Your task to perform on an android device: Open settings Image 0: 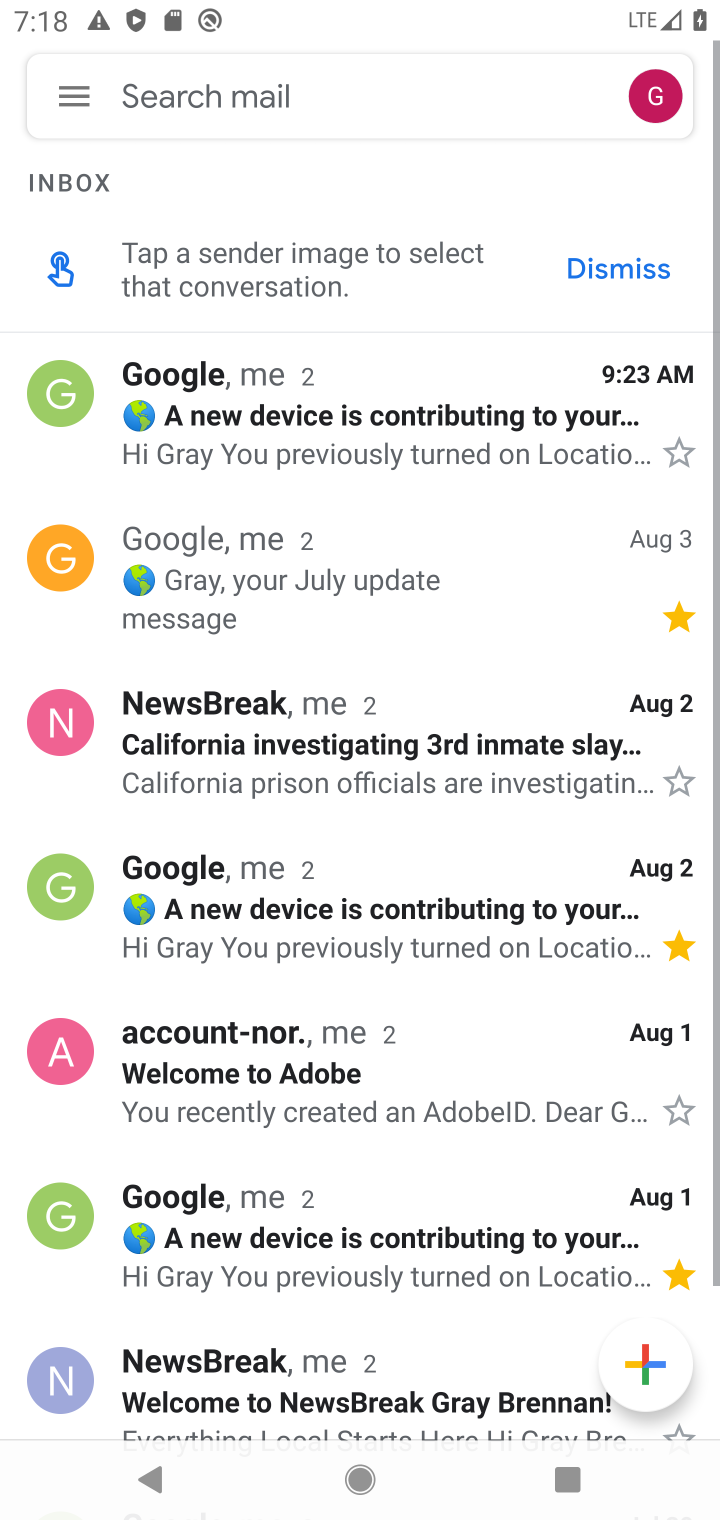
Step 0: press home button
Your task to perform on an android device: Open settings Image 1: 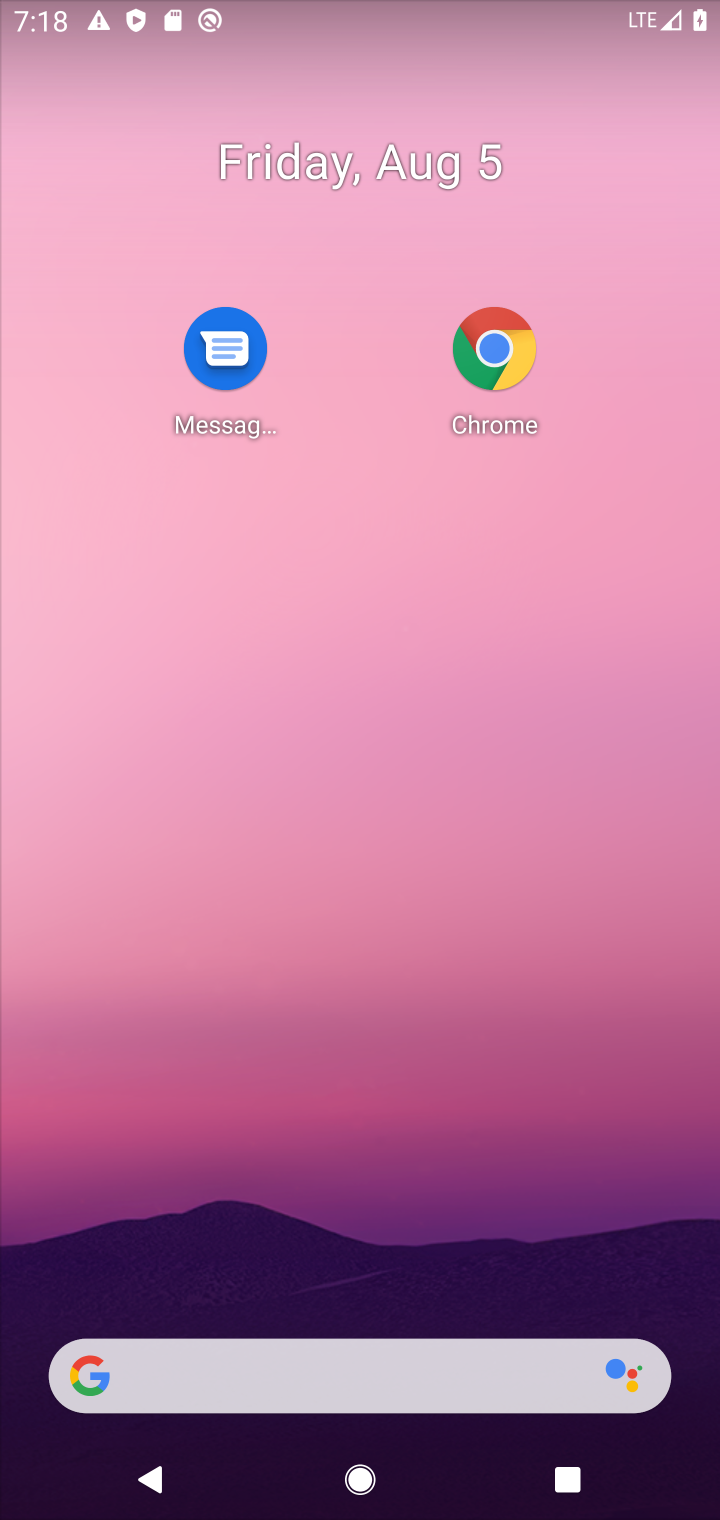
Step 1: drag from (484, 1401) to (458, 437)
Your task to perform on an android device: Open settings Image 2: 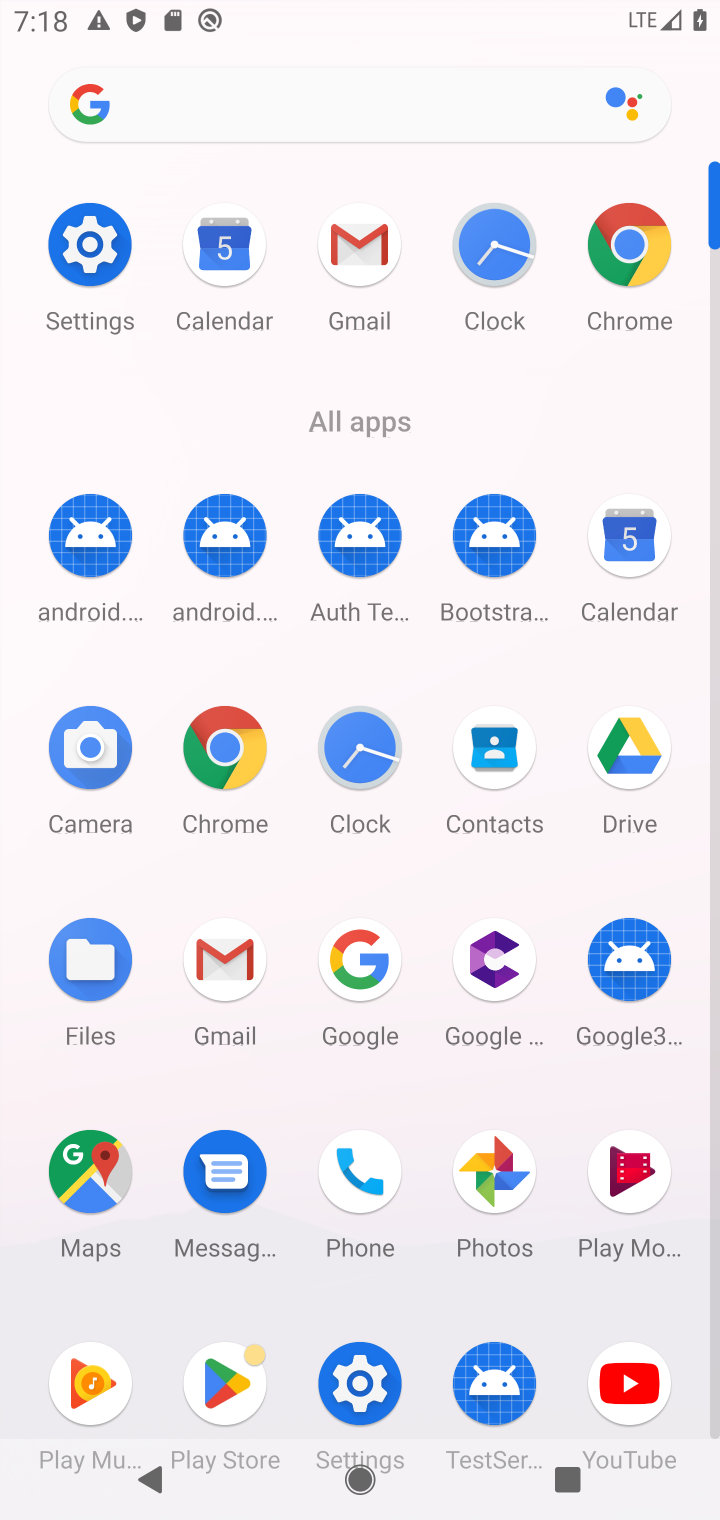
Step 2: click (79, 244)
Your task to perform on an android device: Open settings Image 3: 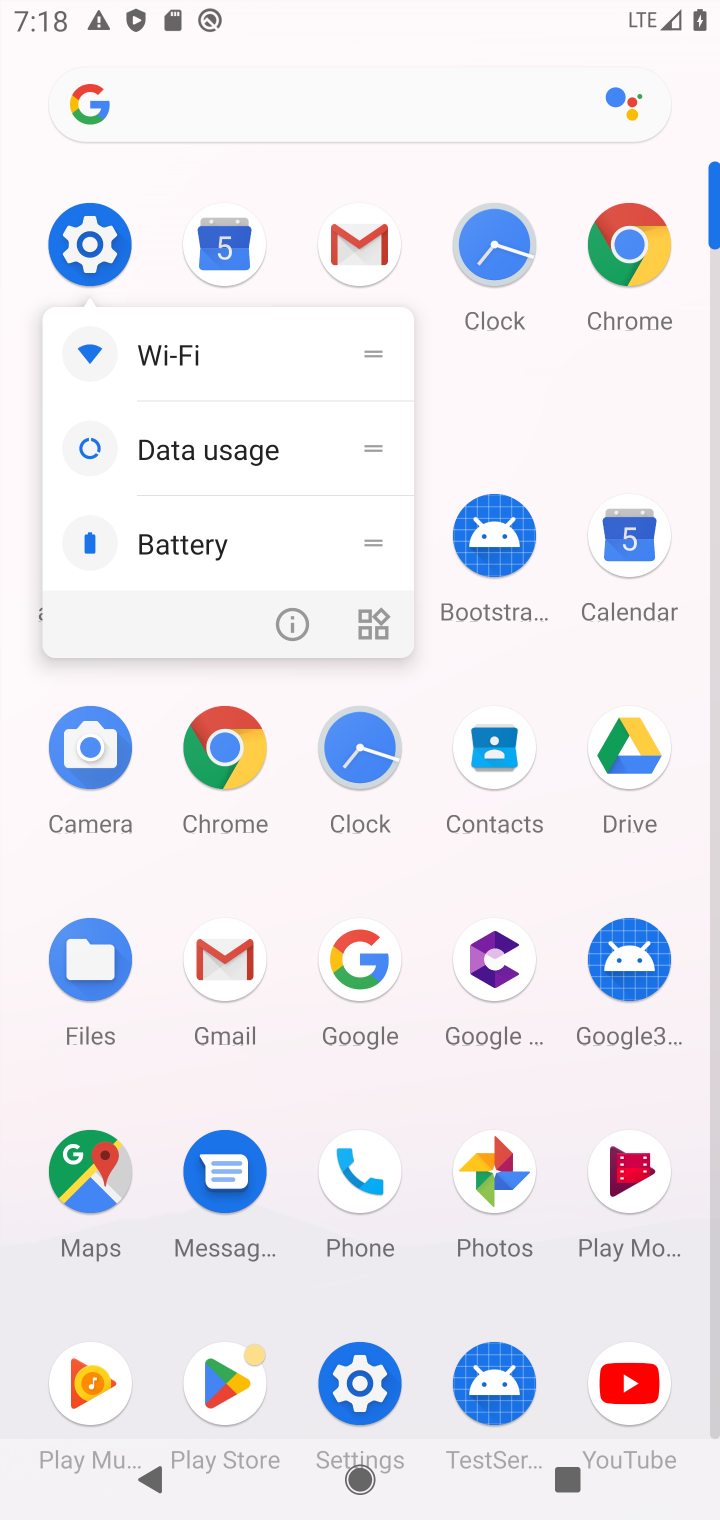
Step 3: click (76, 238)
Your task to perform on an android device: Open settings Image 4: 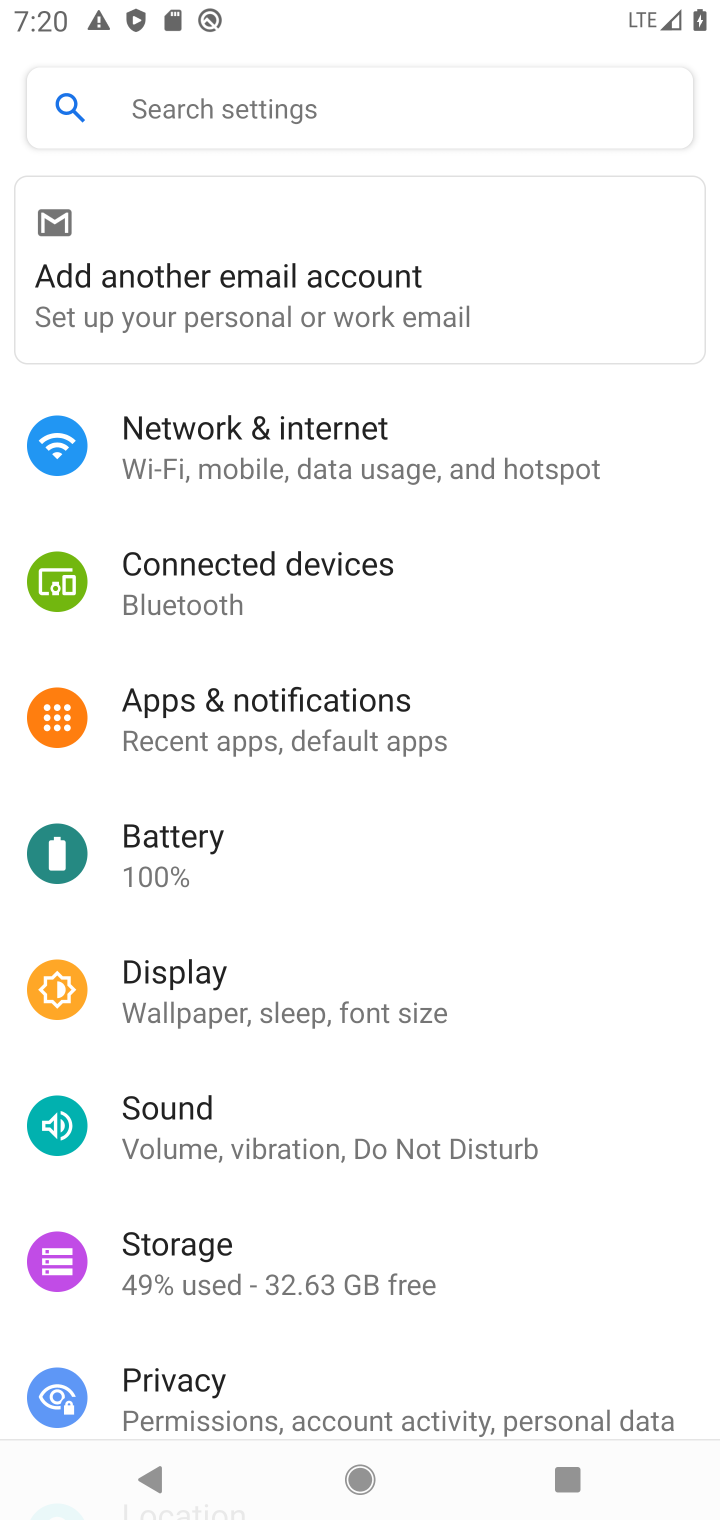
Step 4: task complete